Your task to perform on an android device: turn off priority inbox in the gmail app Image 0: 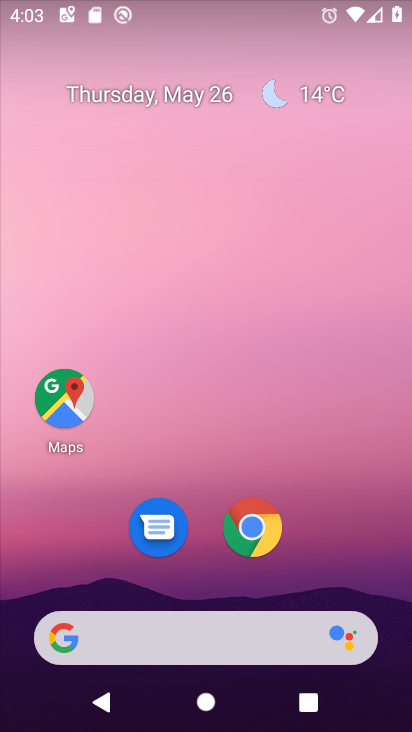
Step 0: drag from (382, 618) to (342, 335)
Your task to perform on an android device: turn off priority inbox in the gmail app Image 1: 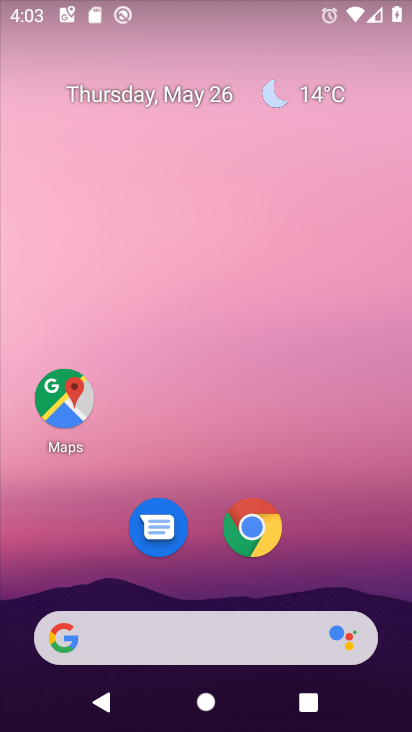
Step 1: drag from (320, 576) to (266, 138)
Your task to perform on an android device: turn off priority inbox in the gmail app Image 2: 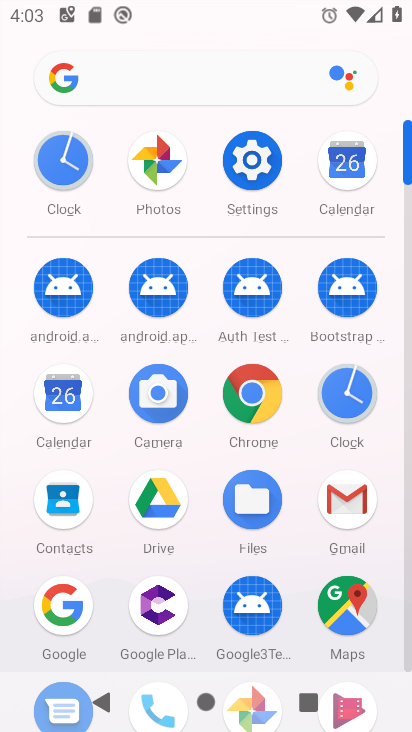
Step 2: click (354, 513)
Your task to perform on an android device: turn off priority inbox in the gmail app Image 3: 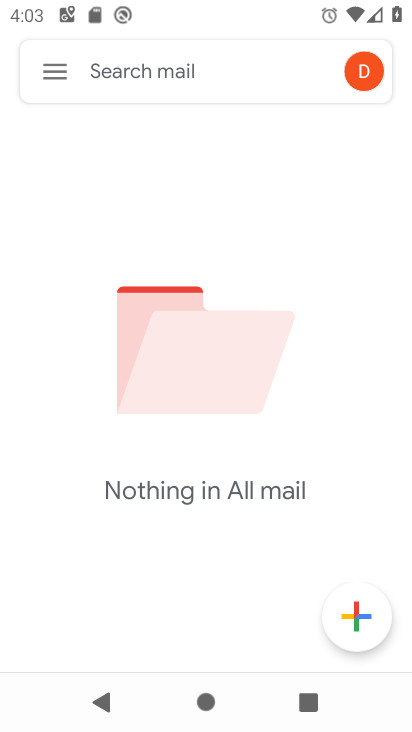
Step 3: click (56, 71)
Your task to perform on an android device: turn off priority inbox in the gmail app Image 4: 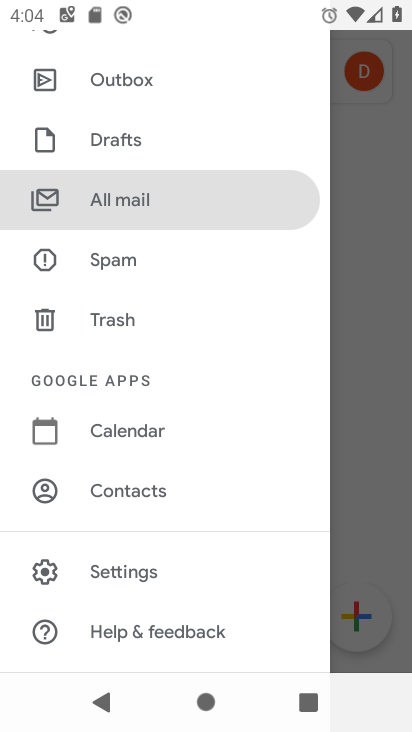
Step 4: click (203, 575)
Your task to perform on an android device: turn off priority inbox in the gmail app Image 5: 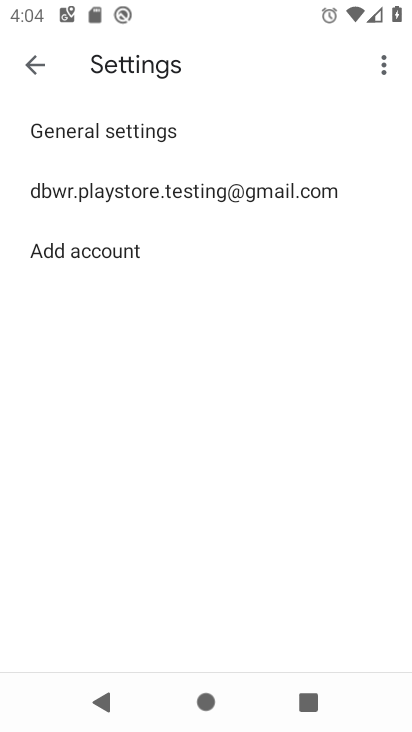
Step 5: click (180, 168)
Your task to perform on an android device: turn off priority inbox in the gmail app Image 6: 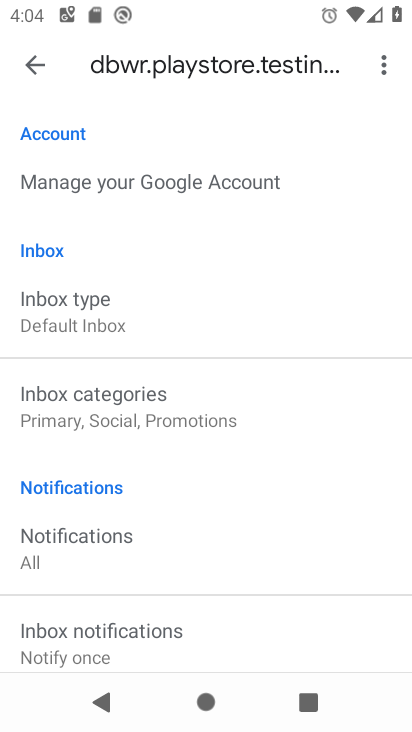
Step 6: click (182, 319)
Your task to perform on an android device: turn off priority inbox in the gmail app Image 7: 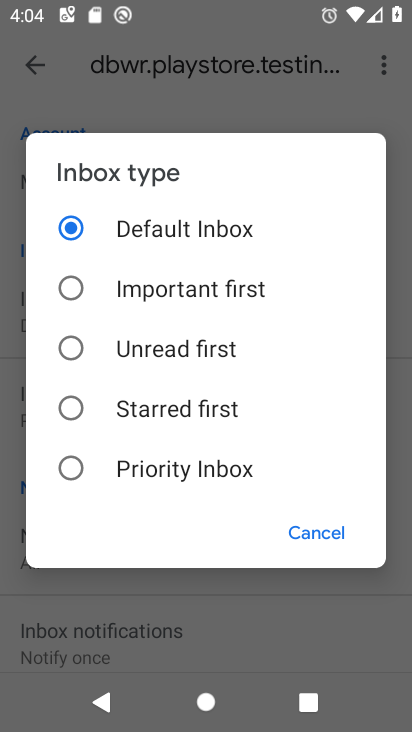
Step 7: task complete